Your task to perform on an android device: Search for vegetarian restaurants on Maps Image 0: 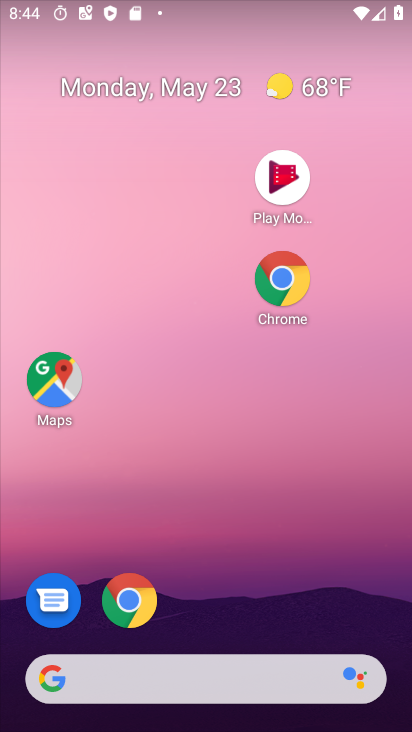
Step 0: drag from (262, 683) to (193, 20)
Your task to perform on an android device: Search for vegetarian restaurants on Maps Image 1: 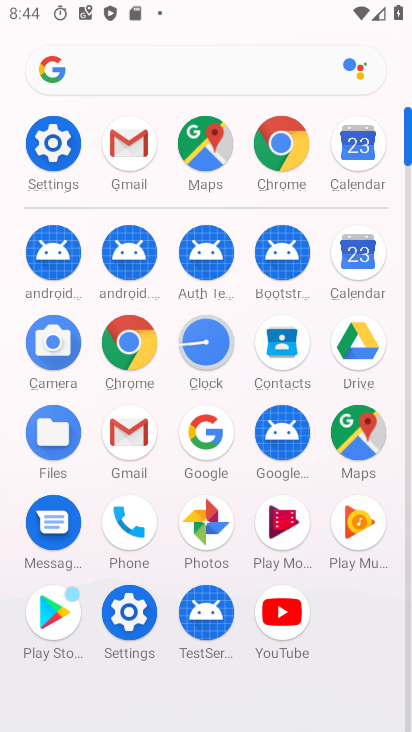
Step 1: click (356, 433)
Your task to perform on an android device: Search for vegetarian restaurants on Maps Image 2: 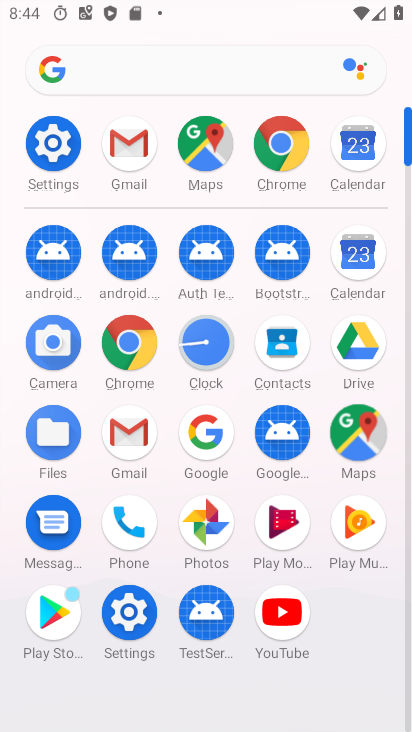
Step 2: click (356, 433)
Your task to perform on an android device: Search for vegetarian restaurants on Maps Image 3: 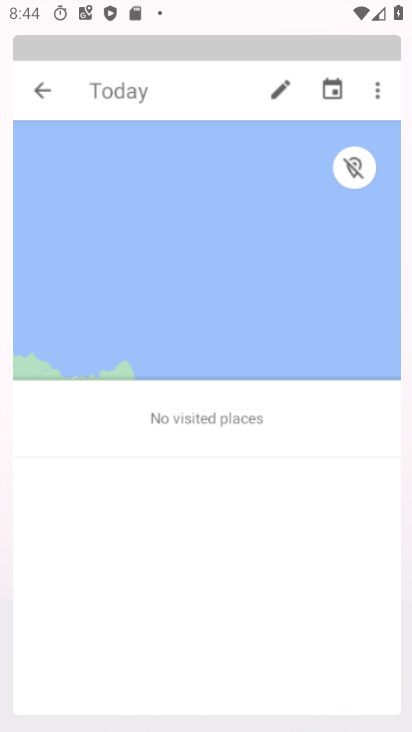
Step 3: click (355, 432)
Your task to perform on an android device: Search for vegetarian restaurants on Maps Image 4: 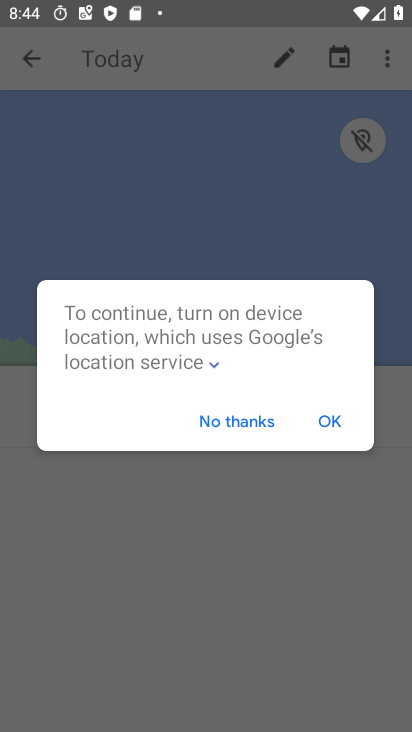
Step 4: click (331, 422)
Your task to perform on an android device: Search for vegetarian restaurants on Maps Image 5: 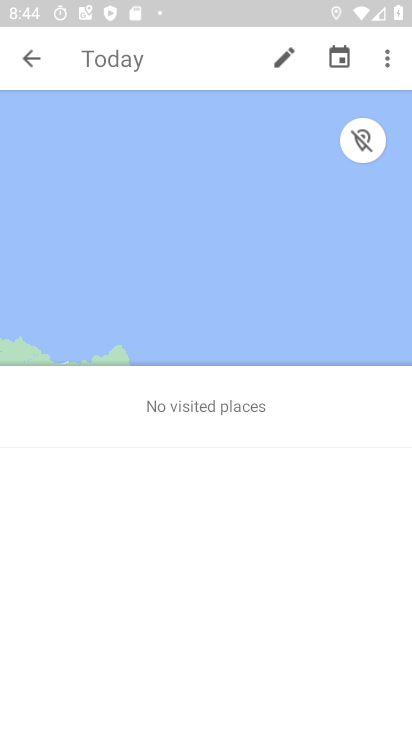
Step 5: click (93, 50)
Your task to perform on an android device: Search for vegetarian restaurants on Maps Image 6: 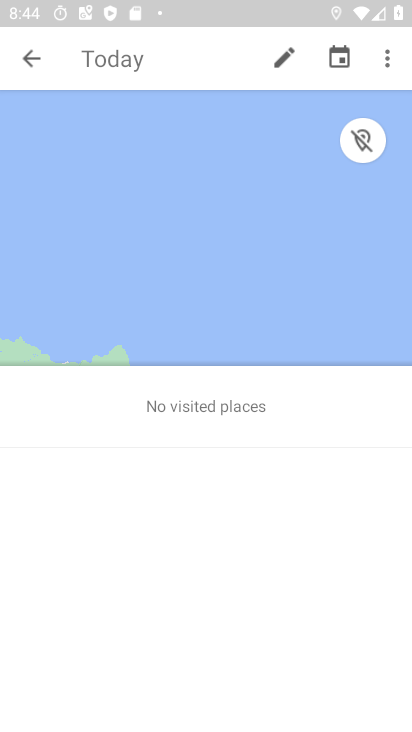
Step 6: click (82, 55)
Your task to perform on an android device: Search for vegetarian restaurants on Maps Image 7: 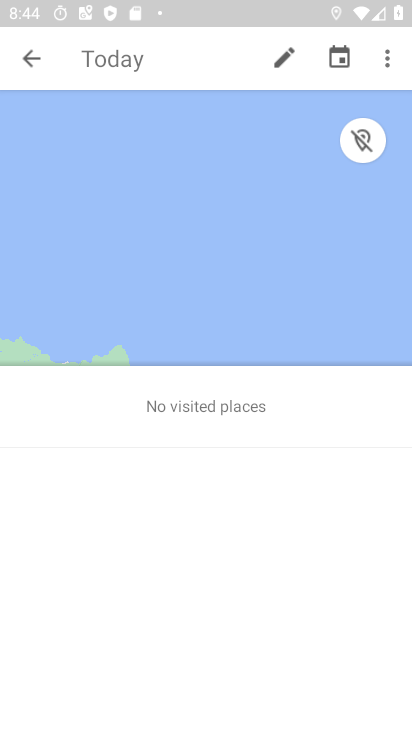
Step 7: click (81, 64)
Your task to perform on an android device: Search for vegetarian restaurants on Maps Image 8: 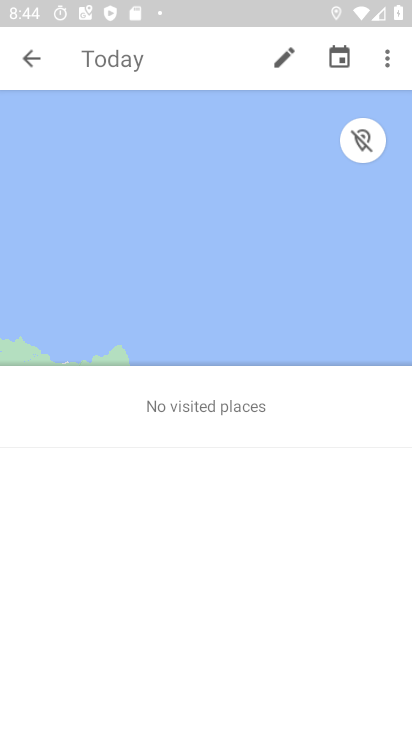
Step 8: click (96, 55)
Your task to perform on an android device: Search for vegetarian restaurants on Maps Image 9: 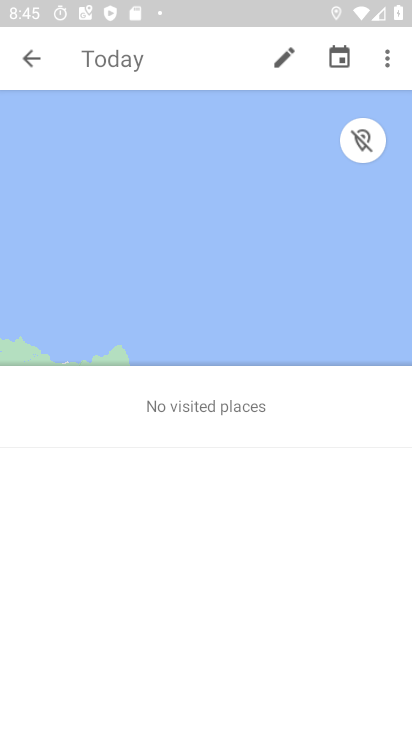
Step 9: click (85, 46)
Your task to perform on an android device: Search for vegetarian restaurants on Maps Image 10: 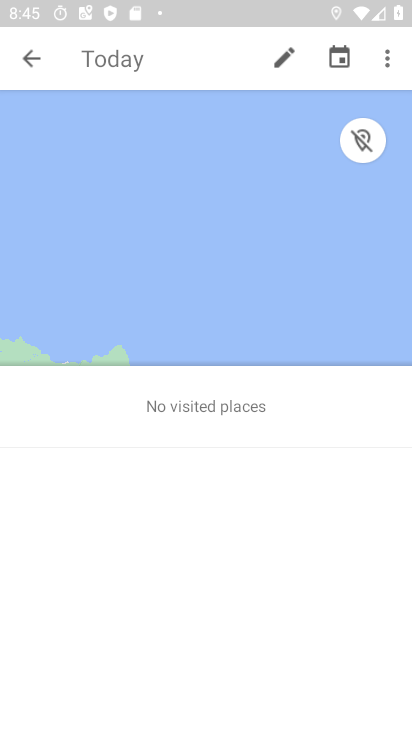
Step 10: click (88, 49)
Your task to perform on an android device: Search for vegetarian restaurants on Maps Image 11: 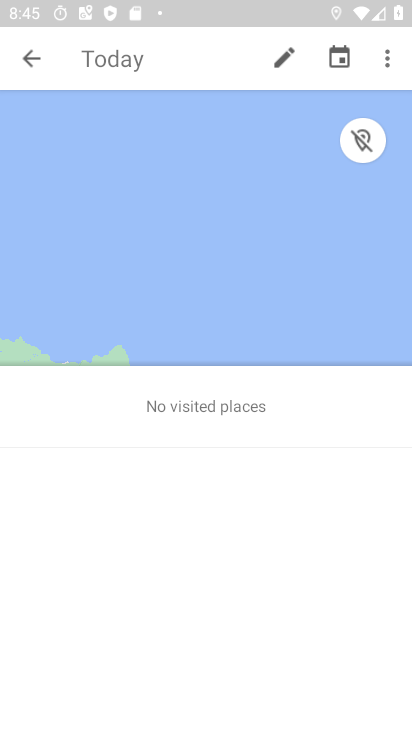
Step 11: click (90, 53)
Your task to perform on an android device: Search for vegetarian restaurants on Maps Image 12: 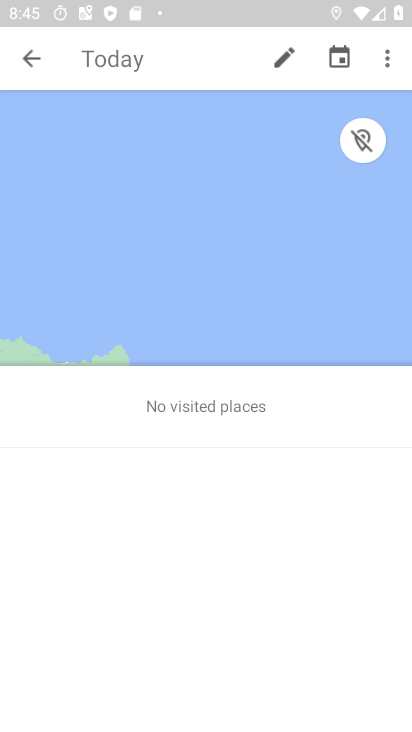
Step 12: click (82, 52)
Your task to perform on an android device: Search for vegetarian restaurants on Maps Image 13: 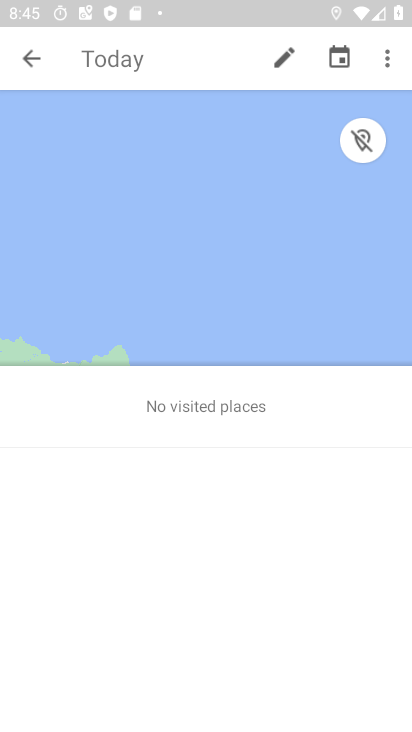
Step 13: click (82, 52)
Your task to perform on an android device: Search for vegetarian restaurants on Maps Image 14: 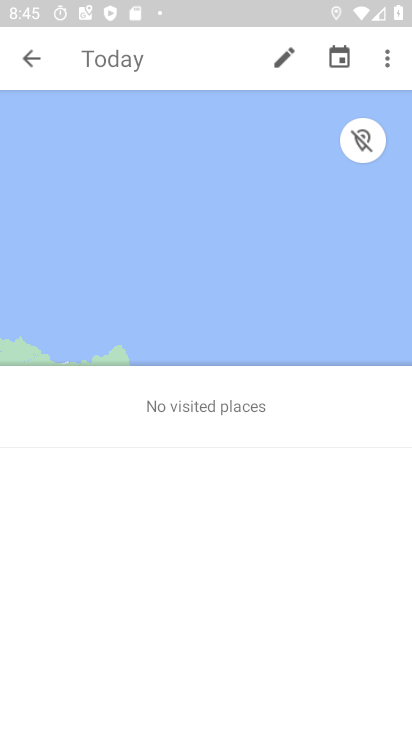
Step 14: click (83, 51)
Your task to perform on an android device: Search for vegetarian restaurants on Maps Image 15: 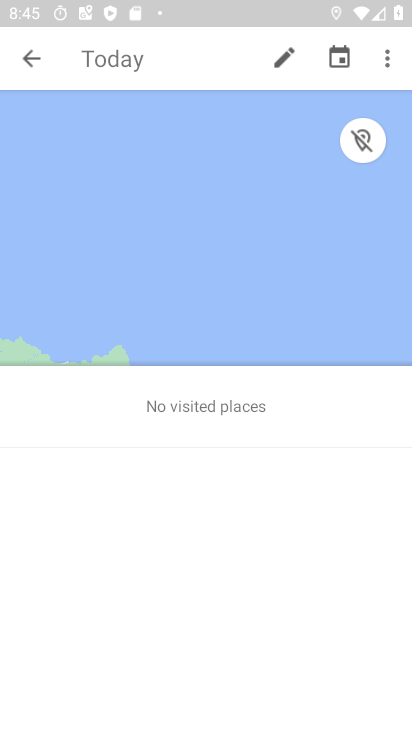
Step 15: click (84, 60)
Your task to perform on an android device: Search for vegetarian restaurants on Maps Image 16: 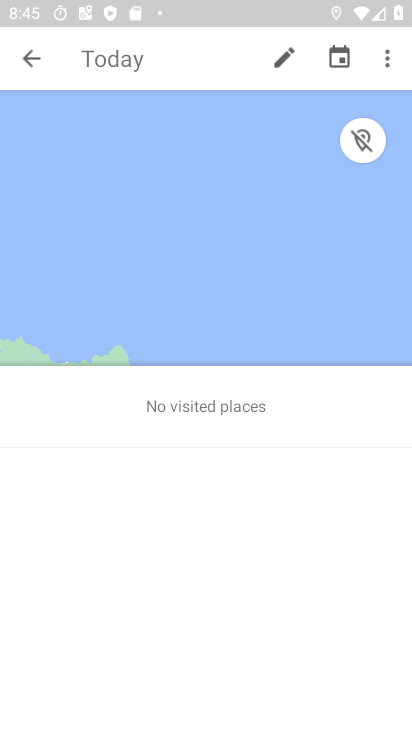
Step 16: click (89, 60)
Your task to perform on an android device: Search for vegetarian restaurants on Maps Image 17: 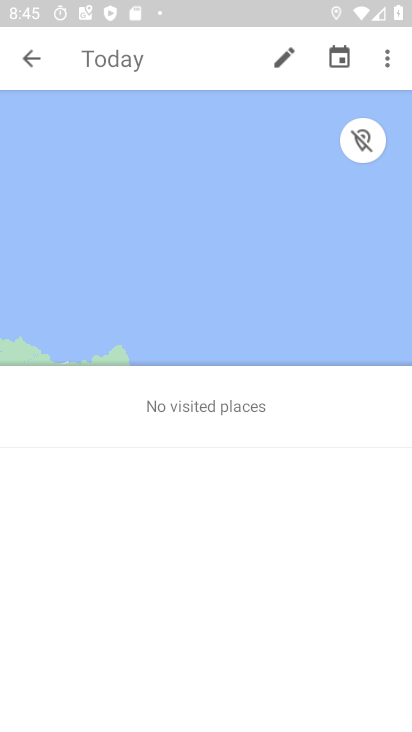
Step 17: click (33, 55)
Your task to perform on an android device: Search for vegetarian restaurants on Maps Image 18: 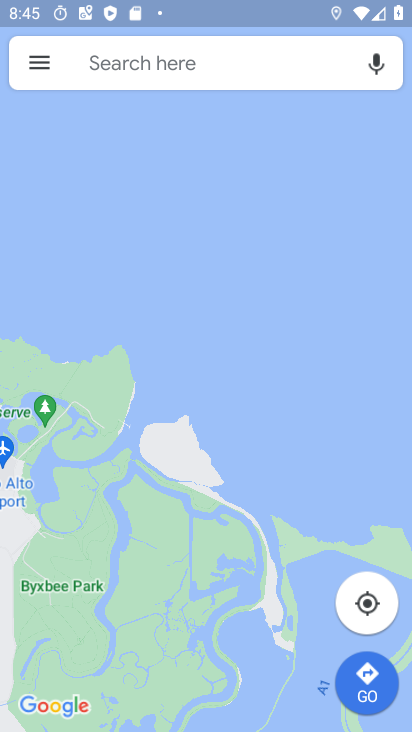
Step 18: click (95, 61)
Your task to perform on an android device: Search for vegetarian restaurants on Maps Image 19: 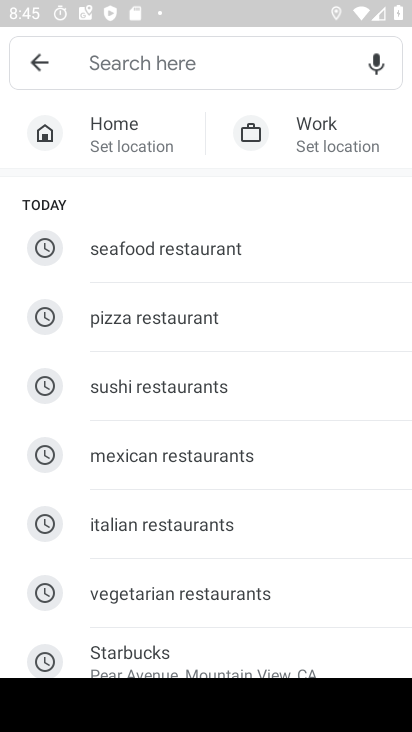
Step 19: click (154, 589)
Your task to perform on an android device: Search for vegetarian restaurants on Maps Image 20: 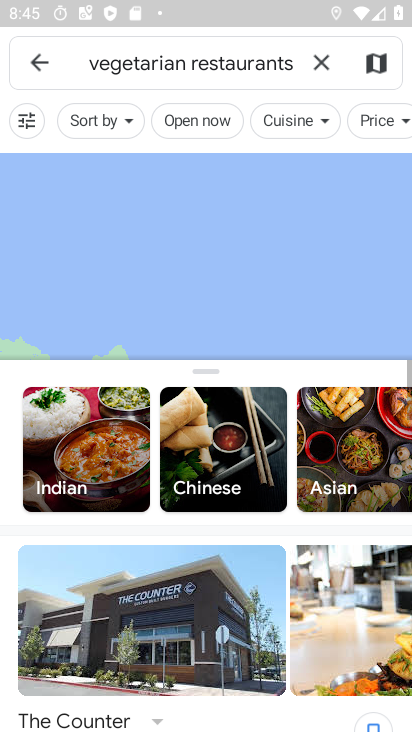
Step 20: task complete